Your task to perform on an android device: Open the stopwatch Image 0: 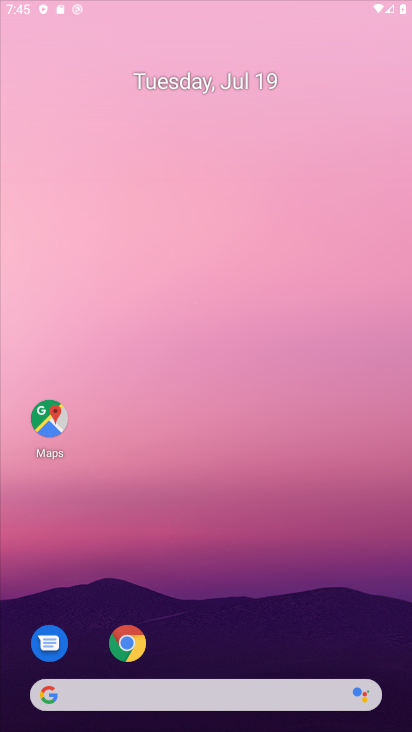
Step 0: click (44, 428)
Your task to perform on an android device: Open the stopwatch Image 1: 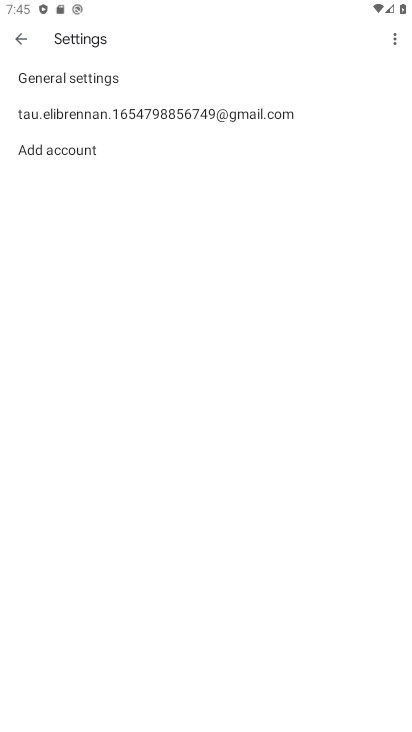
Step 1: click (16, 36)
Your task to perform on an android device: Open the stopwatch Image 2: 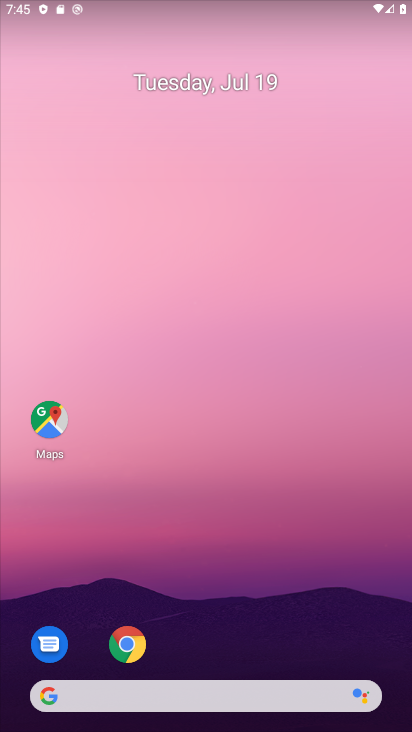
Step 2: drag from (26, 688) to (231, 219)
Your task to perform on an android device: Open the stopwatch Image 3: 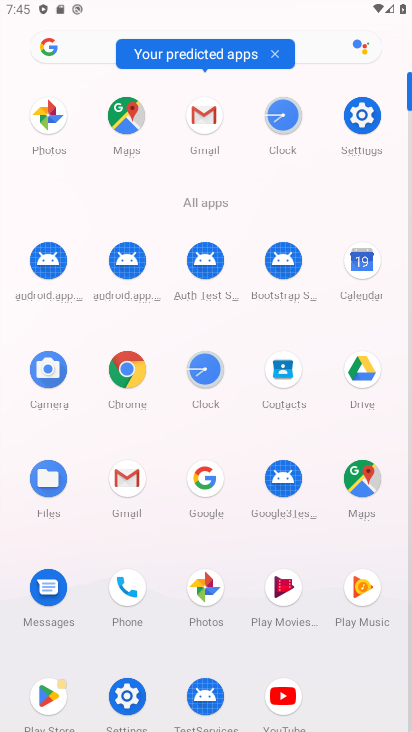
Step 3: click (191, 377)
Your task to perform on an android device: Open the stopwatch Image 4: 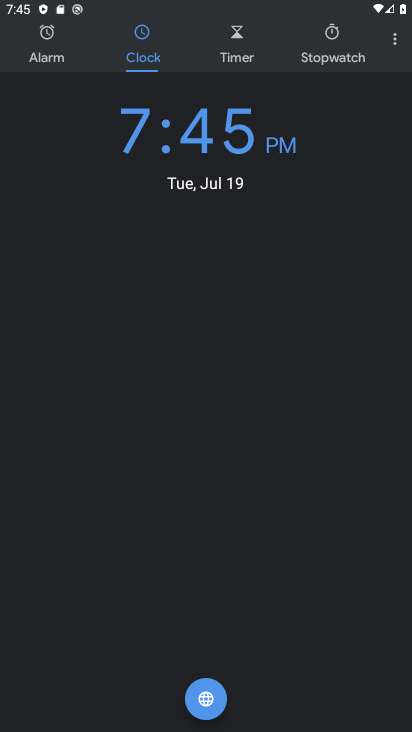
Step 4: click (324, 51)
Your task to perform on an android device: Open the stopwatch Image 5: 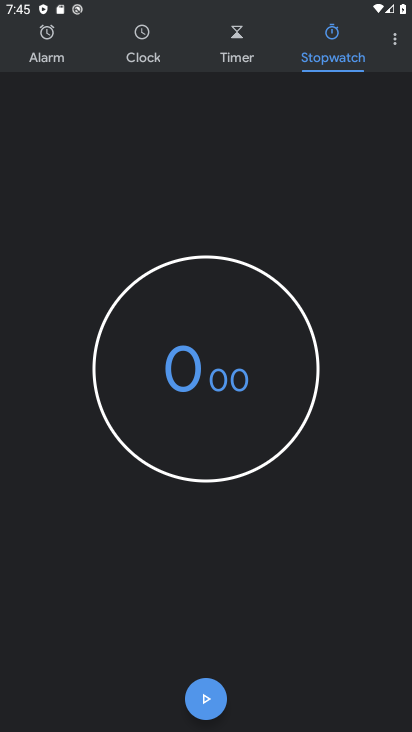
Step 5: click (216, 700)
Your task to perform on an android device: Open the stopwatch Image 6: 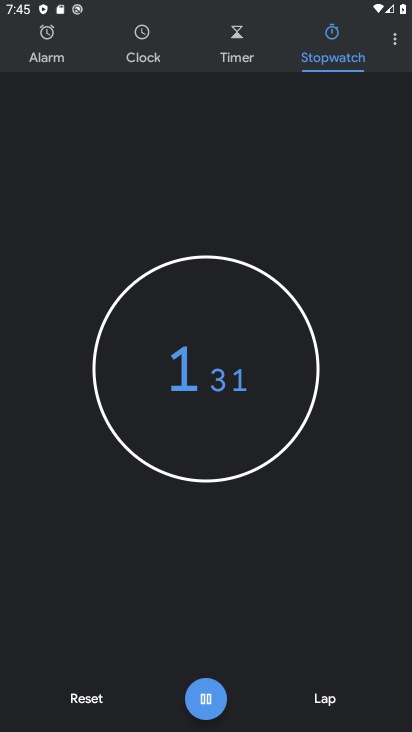
Step 6: click (203, 700)
Your task to perform on an android device: Open the stopwatch Image 7: 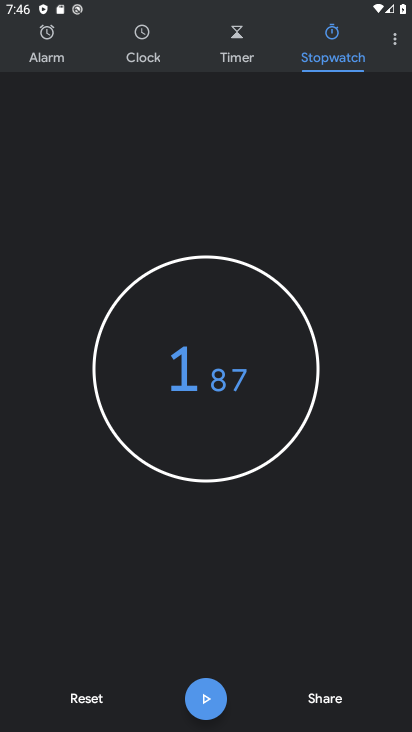
Step 7: task complete